Your task to perform on an android device: Open wifi settings Image 0: 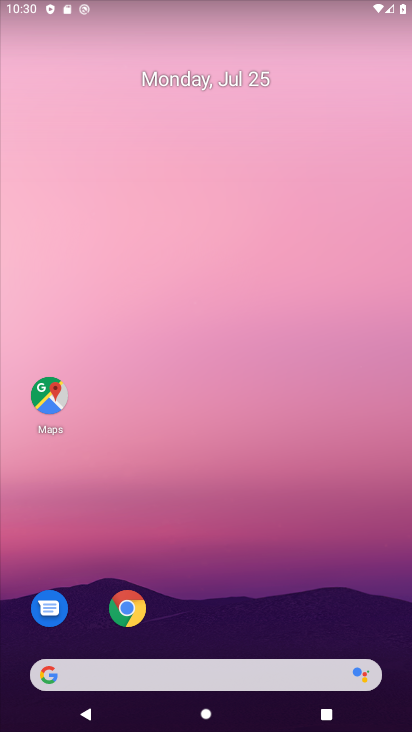
Step 0: drag from (246, 387) to (221, 259)
Your task to perform on an android device: Open wifi settings Image 1: 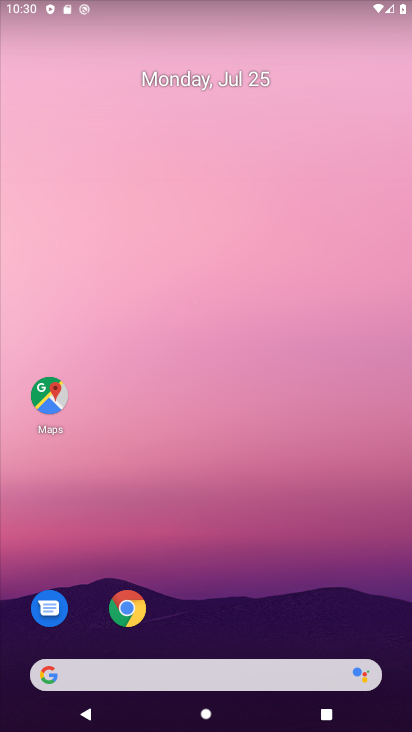
Step 1: drag from (281, 427) to (241, 160)
Your task to perform on an android device: Open wifi settings Image 2: 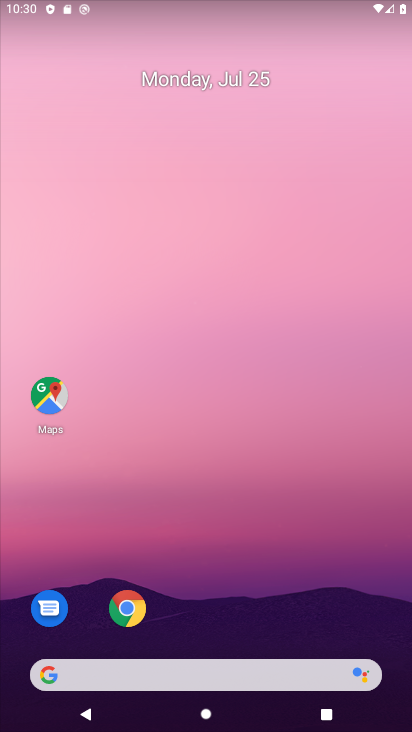
Step 2: click (152, 242)
Your task to perform on an android device: Open wifi settings Image 3: 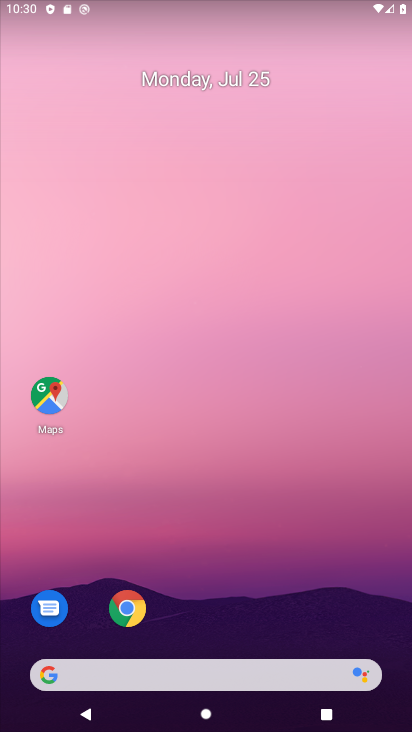
Step 3: drag from (209, 579) to (164, 172)
Your task to perform on an android device: Open wifi settings Image 4: 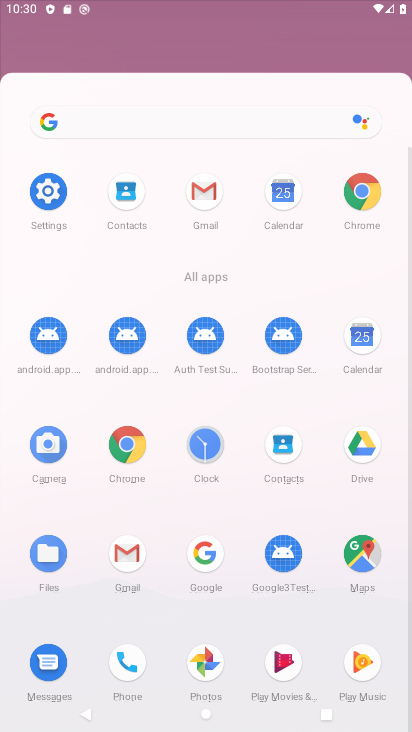
Step 4: drag from (244, 570) to (174, 25)
Your task to perform on an android device: Open wifi settings Image 5: 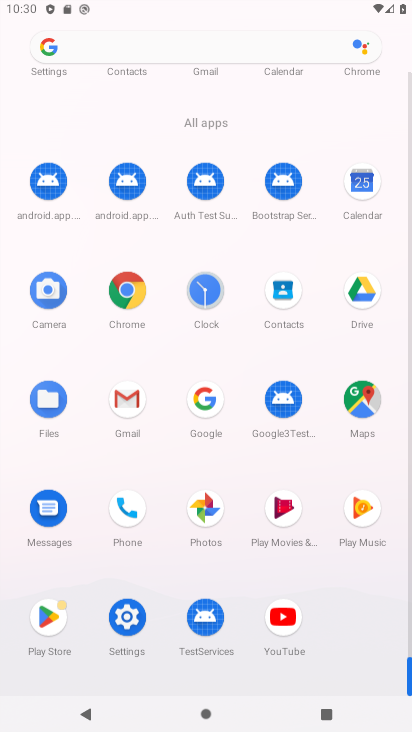
Step 5: drag from (235, 475) to (237, 16)
Your task to perform on an android device: Open wifi settings Image 6: 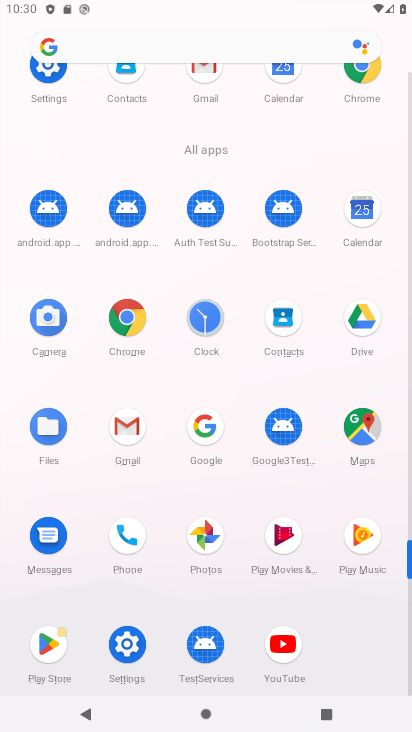
Step 6: click (129, 647)
Your task to perform on an android device: Open wifi settings Image 7: 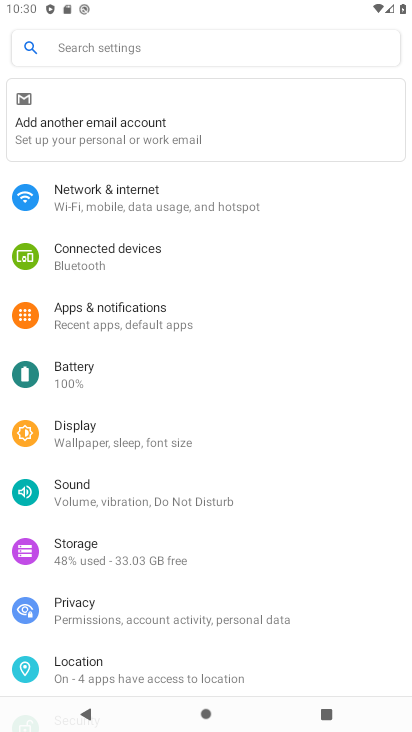
Step 7: click (129, 647)
Your task to perform on an android device: Open wifi settings Image 8: 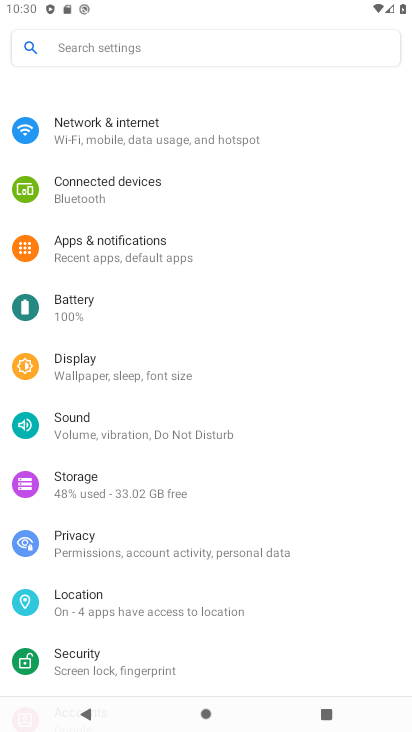
Step 8: click (128, 646)
Your task to perform on an android device: Open wifi settings Image 9: 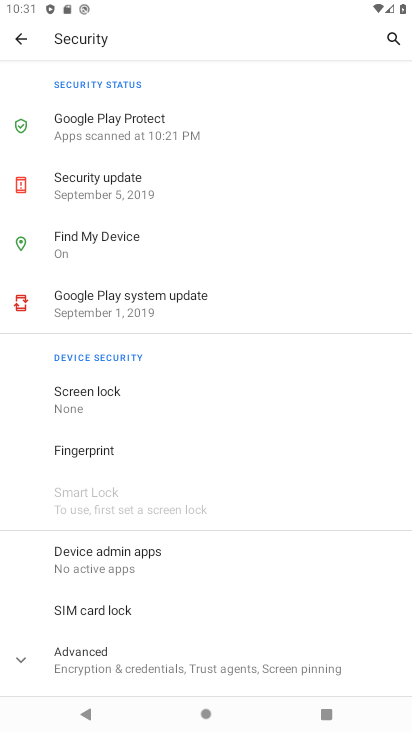
Step 9: click (23, 34)
Your task to perform on an android device: Open wifi settings Image 10: 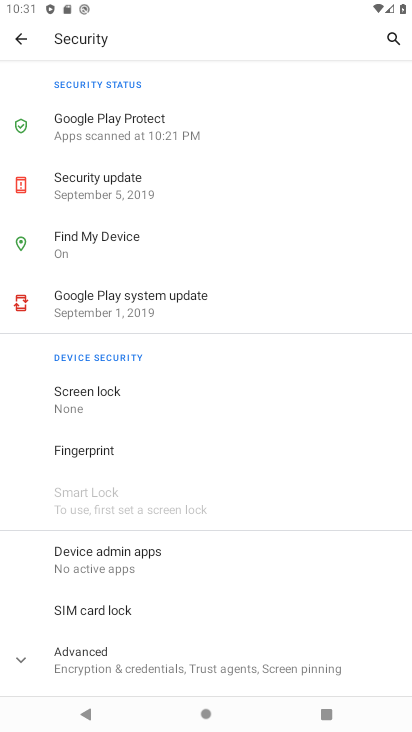
Step 10: click (23, 34)
Your task to perform on an android device: Open wifi settings Image 11: 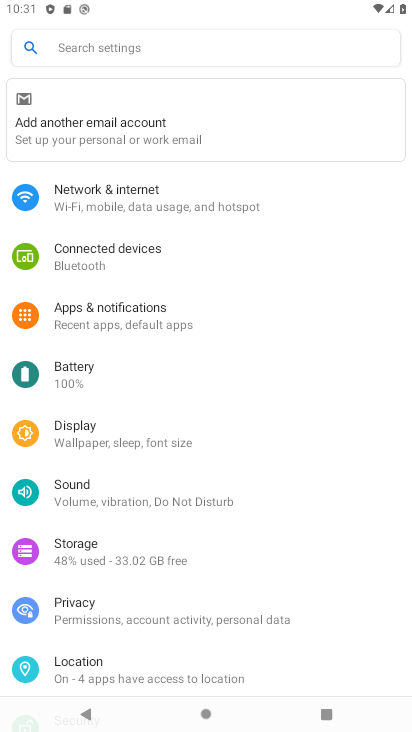
Step 11: drag from (153, 595) to (147, 317)
Your task to perform on an android device: Open wifi settings Image 12: 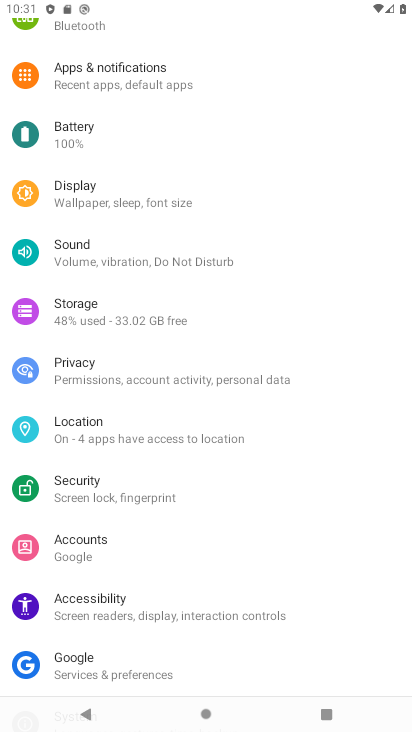
Step 12: drag from (145, 169) to (167, 453)
Your task to perform on an android device: Open wifi settings Image 13: 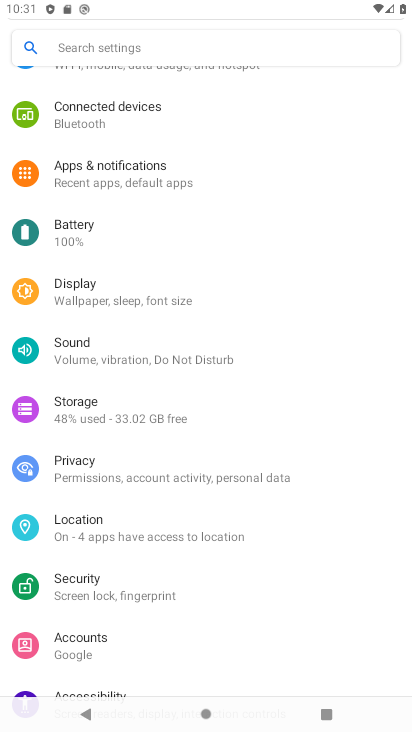
Step 13: drag from (133, 156) to (150, 363)
Your task to perform on an android device: Open wifi settings Image 14: 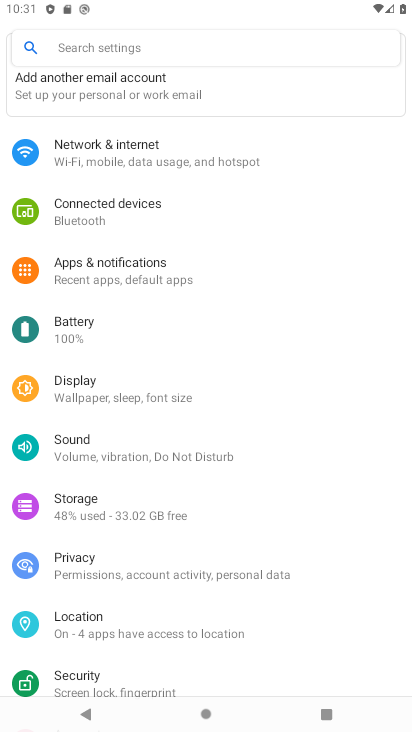
Step 14: drag from (119, 128) to (113, 521)
Your task to perform on an android device: Open wifi settings Image 15: 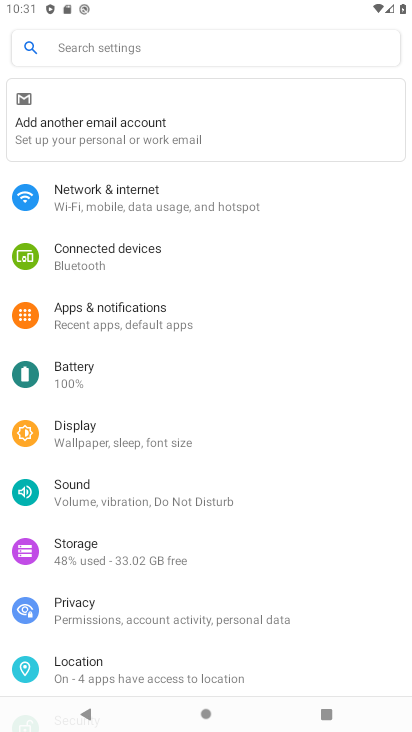
Step 15: click (150, 206)
Your task to perform on an android device: Open wifi settings Image 16: 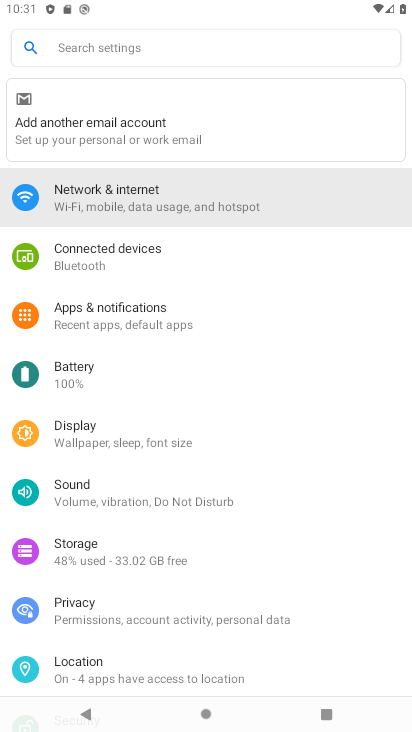
Step 16: click (139, 203)
Your task to perform on an android device: Open wifi settings Image 17: 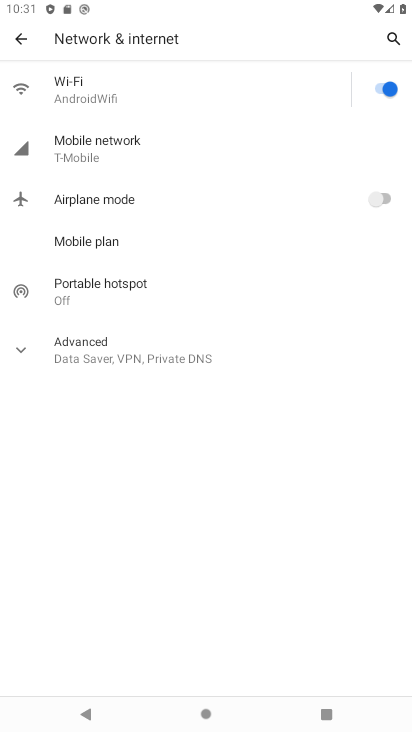
Step 17: task complete